Your task to perform on an android device: When is my next appointment? Image 0: 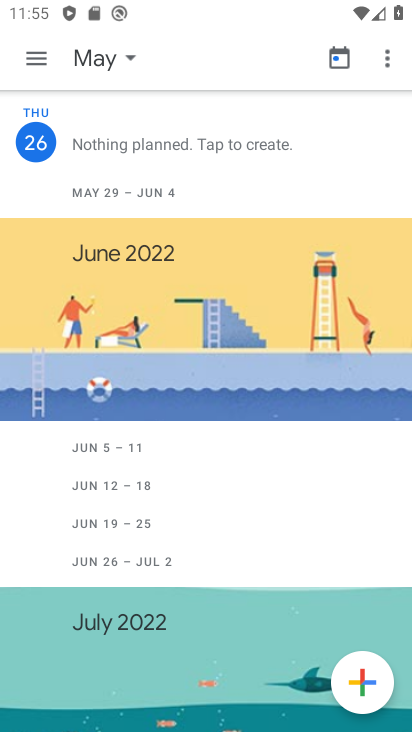
Step 0: drag from (177, 496) to (200, 120)
Your task to perform on an android device: When is my next appointment? Image 1: 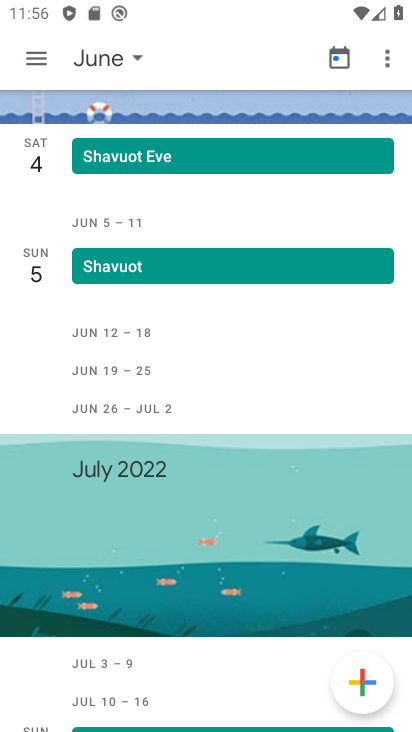
Step 1: press back button
Your task to perform on an android device: When is my next appointment? Image 2: 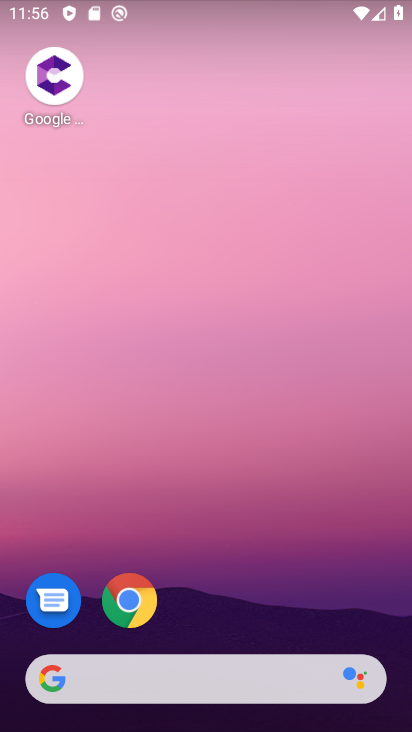
Step 2: drag from (240, 472) to (166, 13)
Your task to perform on an android device: When is my next appointment? Image 3: 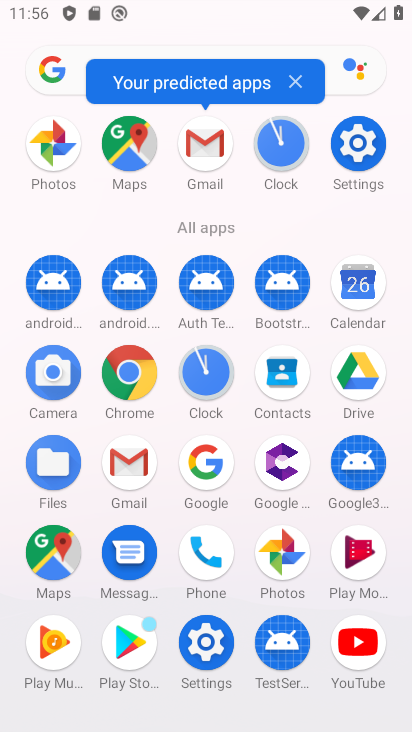
Step 3: click (354, 282)
Your task to perform on an android device: When is my next appointment? Image 4: 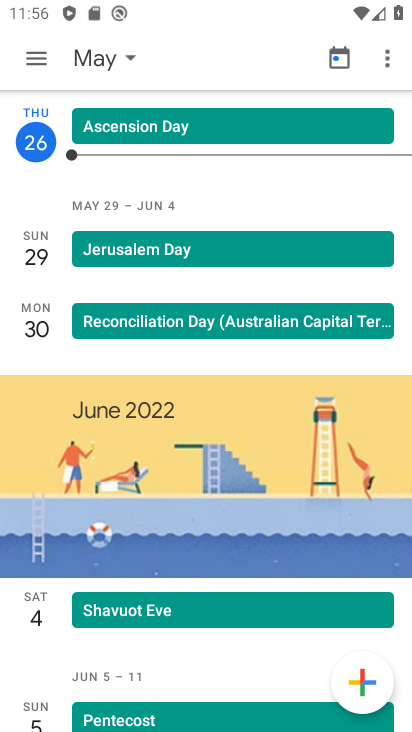
Step 4: click (17, 53)
Your task to perform on an android device: When is my next appointment? Image 5: 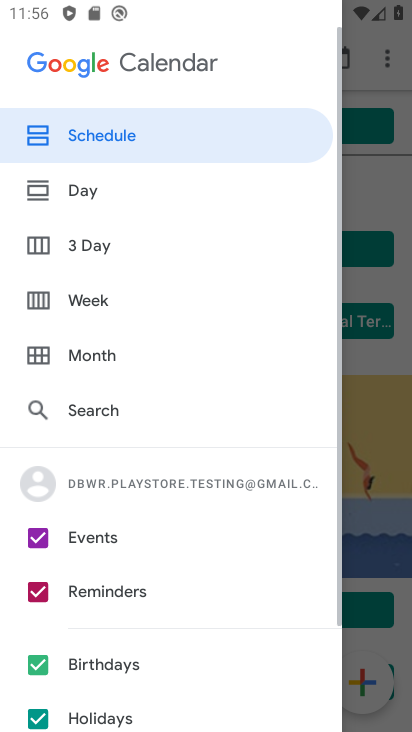
Step 5: click (89, 135)
Your task to perform on an android device: When is my next appointment? Image 6: 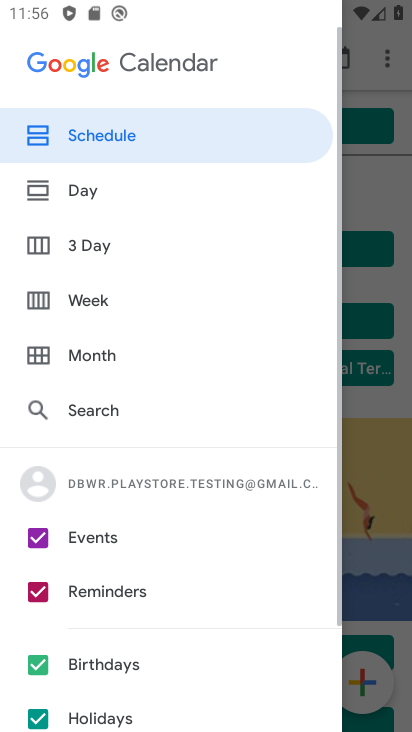
Step 6: click (89, 135)
Your task to perform on an android device: When is my next appointment? Image 7: 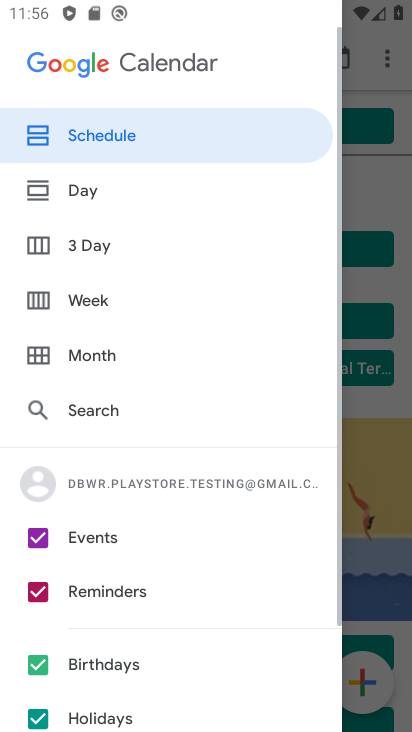
Step 7: click (401, 161)
Your task to perform on an android device: When is my next appointment? Image 8: 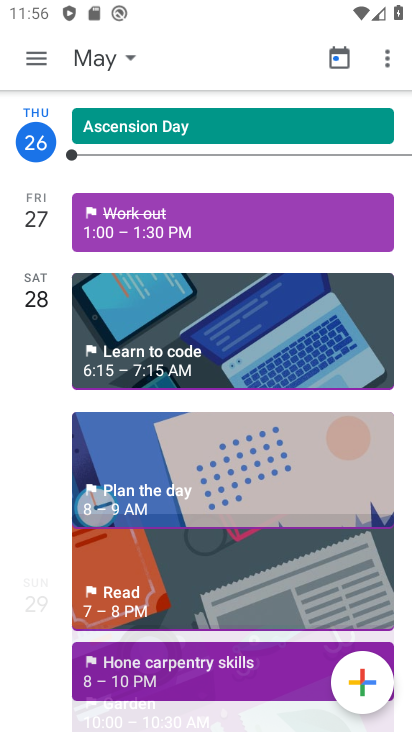
Step 8: task complete